Your task to perform on an android device: Go to Yahoo.com Image 0: 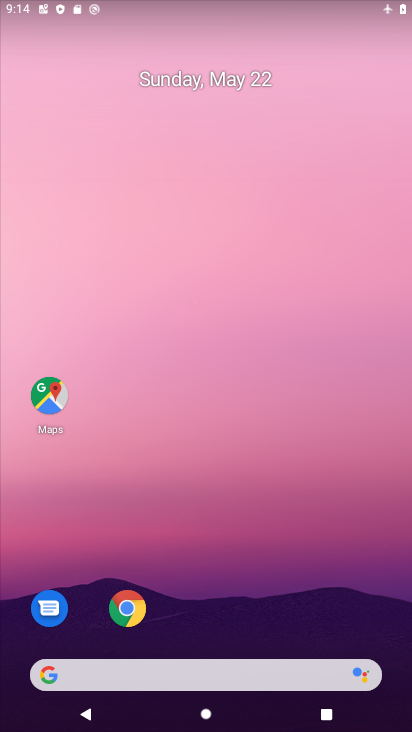
Step 0: click (128, 615)
Your task to perform on an android device: Go to Yahoo.com Image 1: 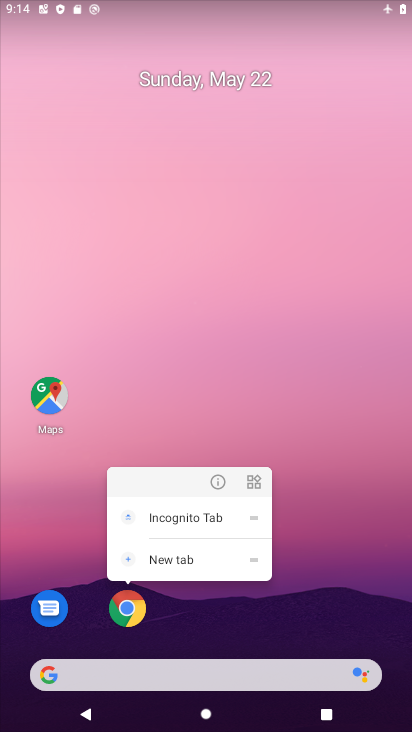
Step 1: click (125, 611)
Your task to perform on an android device: Go to Yahoo.com Image 2: 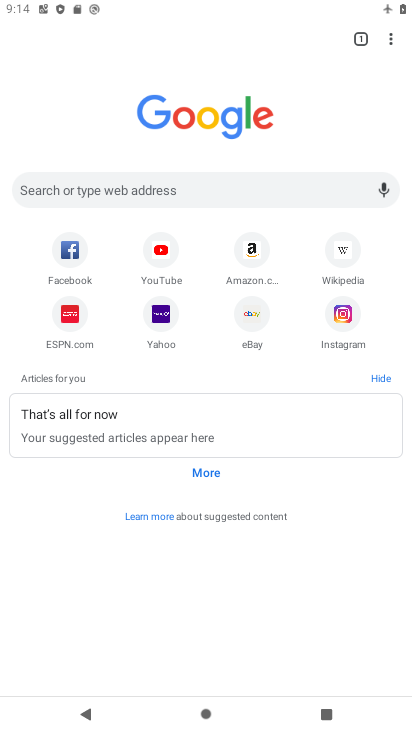
Step 2: click (161, 312)
Your task to perform on an android device: Go to Yahoo.com Image 3: 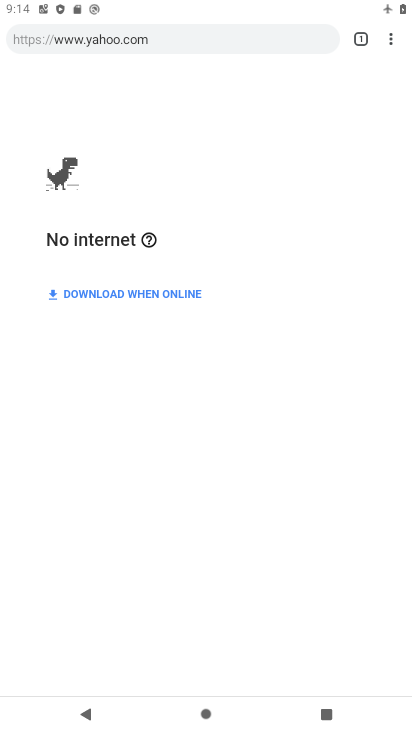
Step 3: task complete